Your task to perform on an android device: all mails in gmail Image 0: 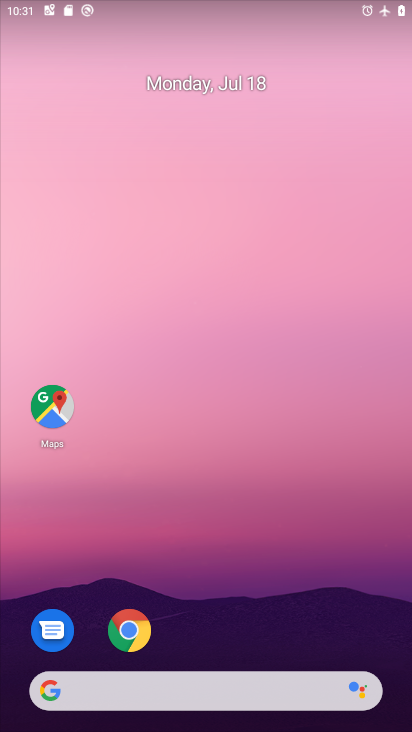
Step 0: drag from (224, 619) to (230, 213)
Your task to perform on an android device: all mails in gmail Image 1: 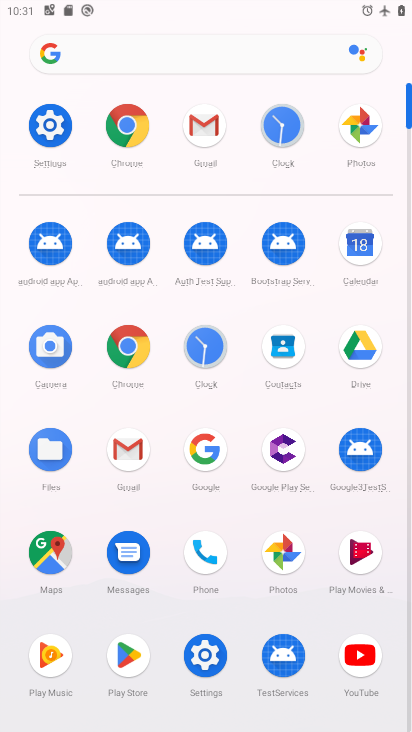
Step 1: click (198, 137)
Your task to perform on an android device: all mails in gmail Image 2: 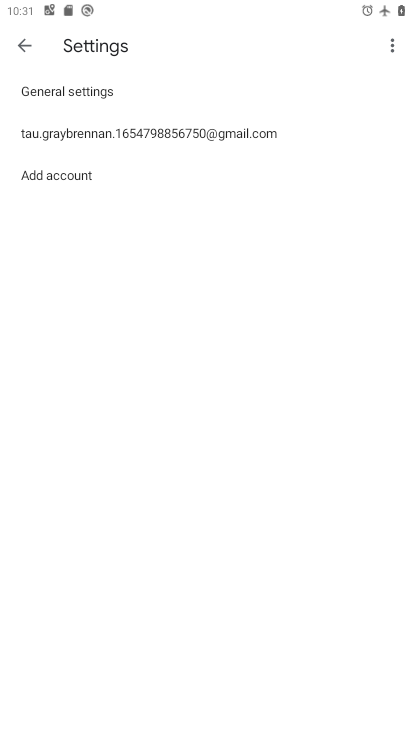
Step 2: click (32, 43)
Your task to perform on an android device: all mails in gmail Image 3: 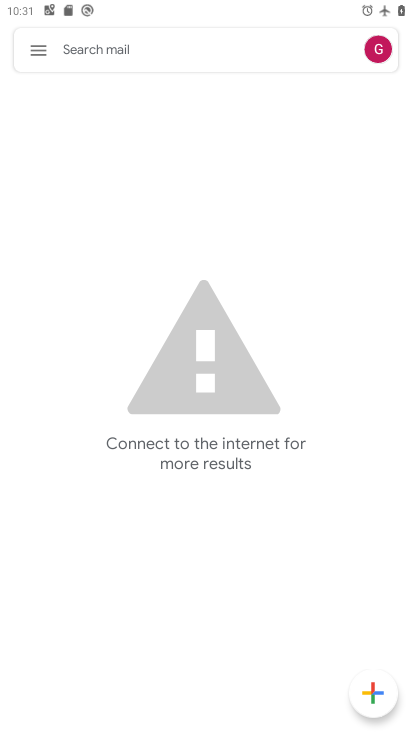
Step 3: click (32, 43)
Your task to perform on an android device: all mails in gmail Image 4: 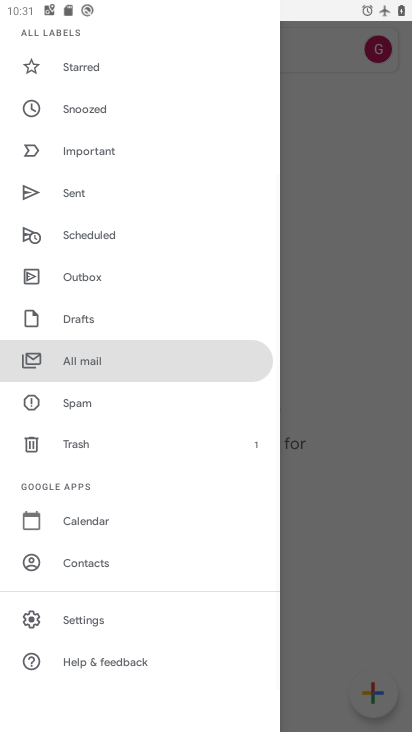
Step 4: click (98, 356)
Your task to perform on an android device: all mails in gmail Image 5: 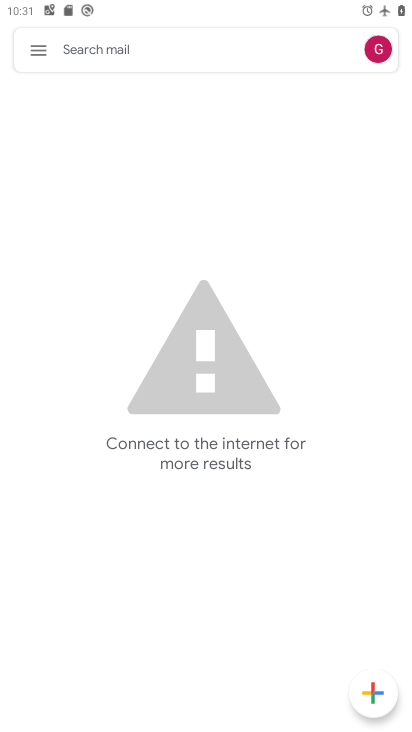
Step 5: task complete